Your task to perform on an android device: turn off picture-in-picture Image 0: 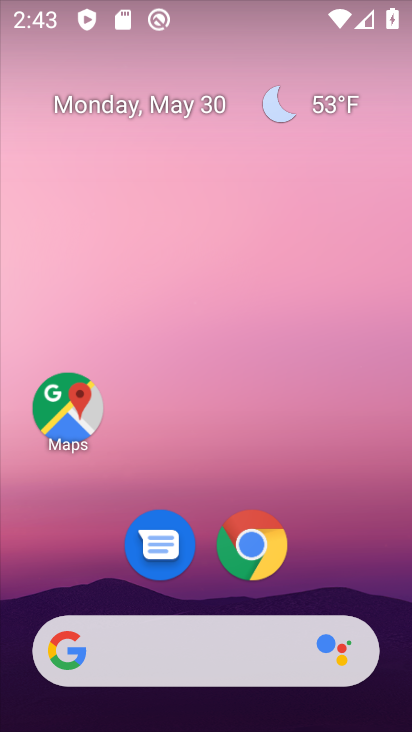
Step 0: drag from (201, 592) to (394, 286)
Your task to perform on an android device: turn off picture-in-picture Image 1: 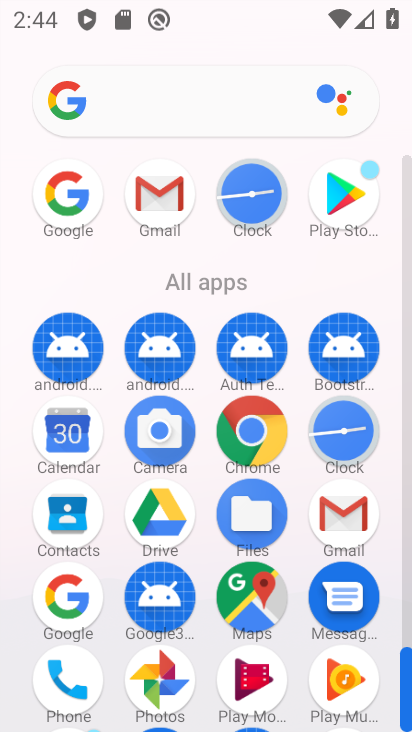
Step 1: drag from (221, 585) to (222, 102)
Your task to perform on an android device: turn off picture-in-picture Image 2: 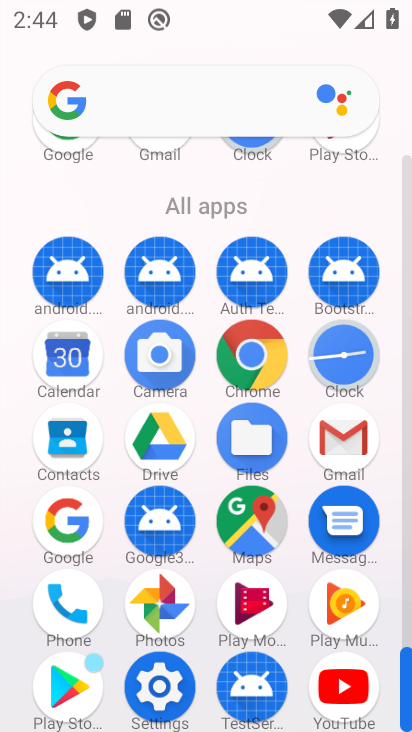
Step 2: click (157, 702)
Your task to perform on an android device: turn off picture-in-picture Image 3: 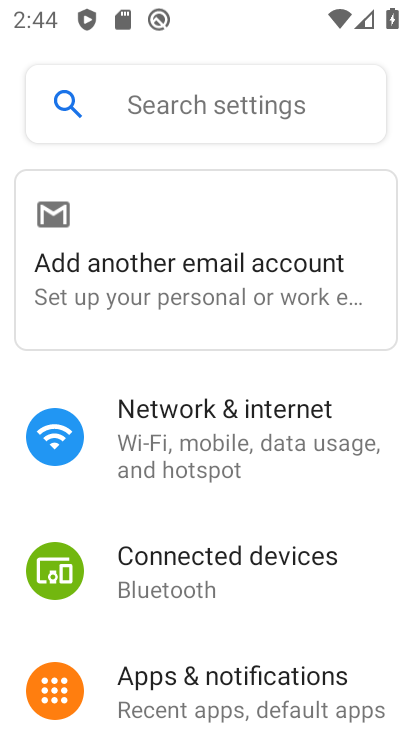
Step 3: drag from (219, 660) to (157, 121)
Your task to perform on an android device: turn off picture-in-picture Image 4: 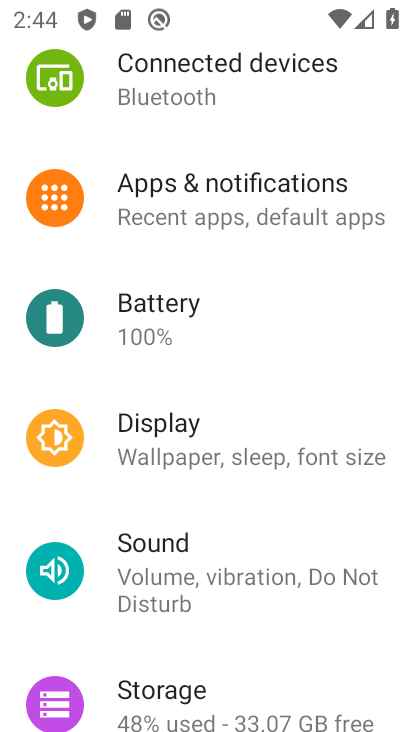
Step 4: click (211, 235)
Your task to perform on an android device: turn off picture-in-picture Image 5: 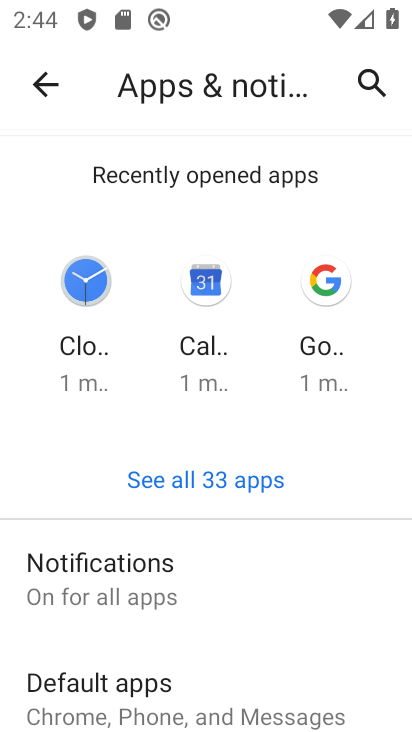
Step 5: drag from (299, 612) to (264, 128)
Your task to perform on an android device: turn off picture-in-picture Image 6: 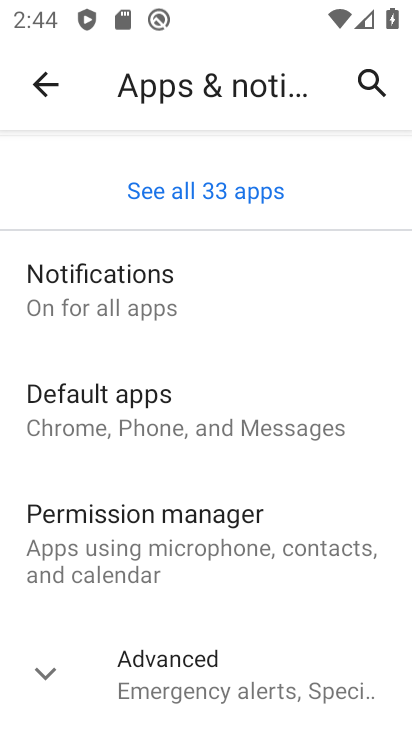
Step 6: click (210, 275)
Your task to perform on an android device: turn off picture-in-picture Image 7: 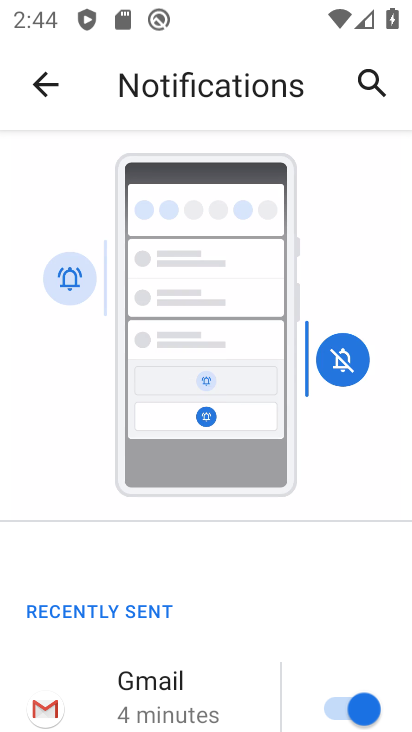
Step 7: drag from (184, 575) to (119, 53)
Your task to perform on an android device: turn off picture-in-picture Image 8: 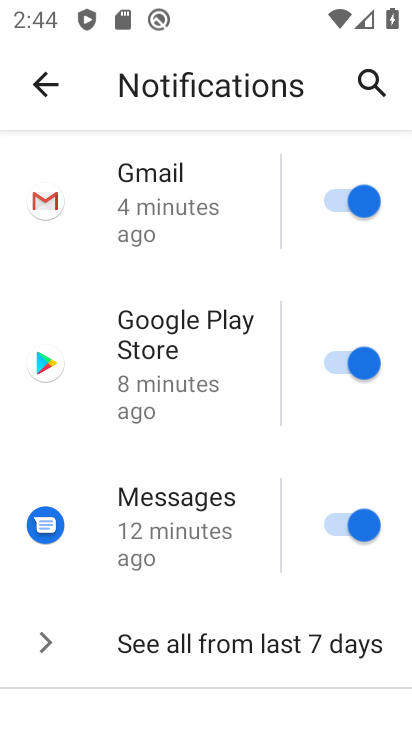
Step 8: drag from (273, 661) to (215, 19)
Your task to perform on an android device: turn off picture-in-picture Image 9: 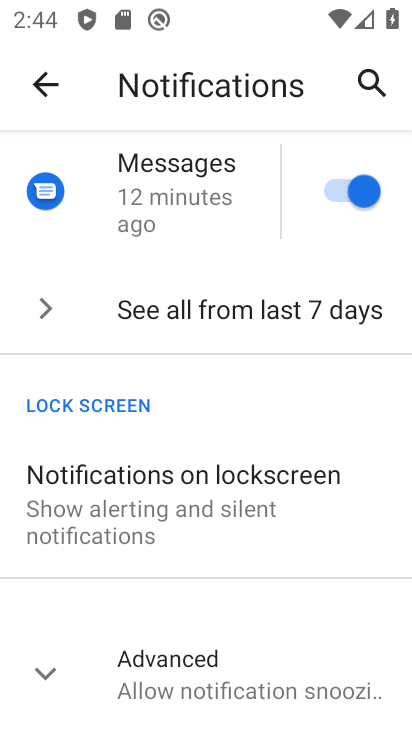
Step 9: click (263, 667)
Your task to perform on an android device: turn off picture-in-picture Image 10: 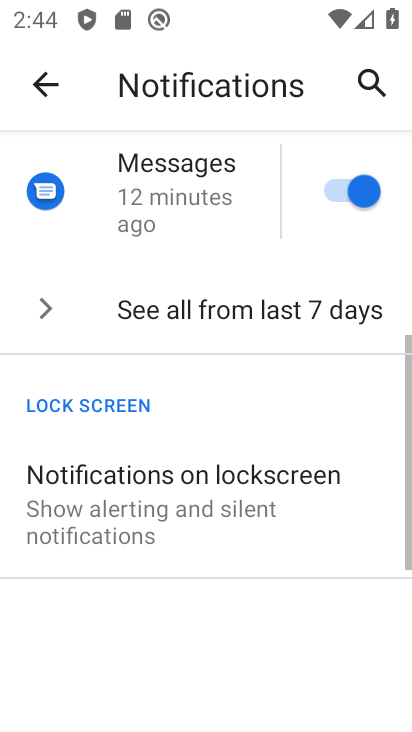
Step 10: task complete